Your task to perform on an android device: uninstall "Life360: Find Family & Friends" Image 0: 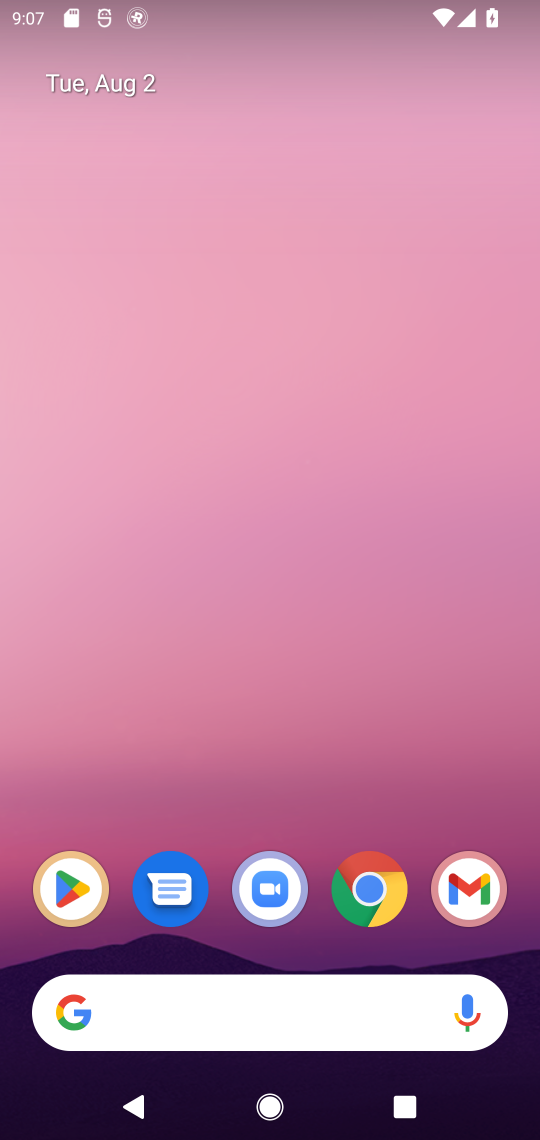
Step 0: press home button
Your task to perform on an android device: uninstall "Life360: Find Family & Friends" Image 1: 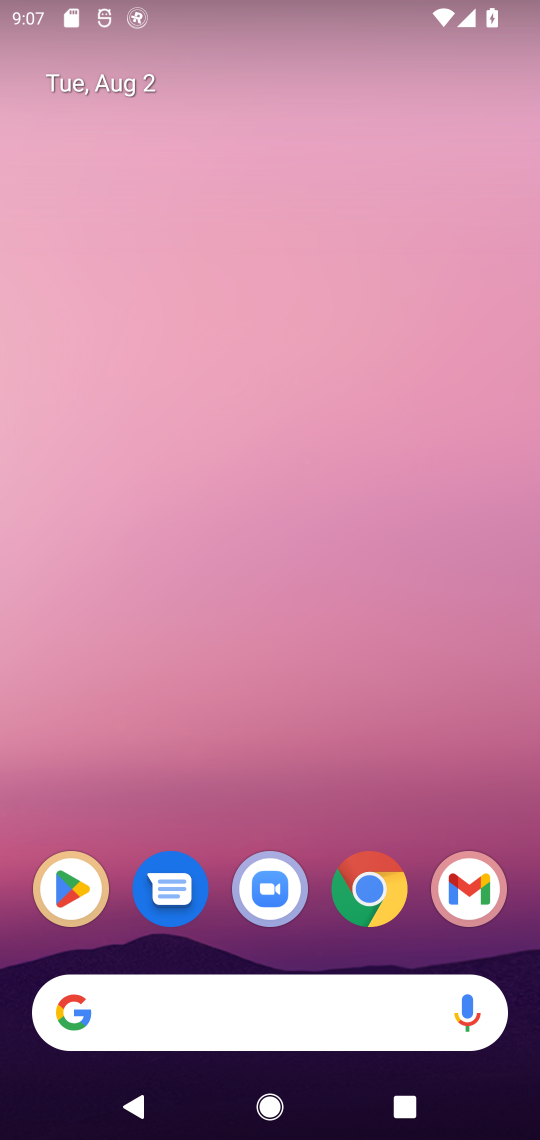
Step 1: click (64, 891)
Your task to perform on an android device: uninstall "Life360: Find Family & Friends" Image 2: 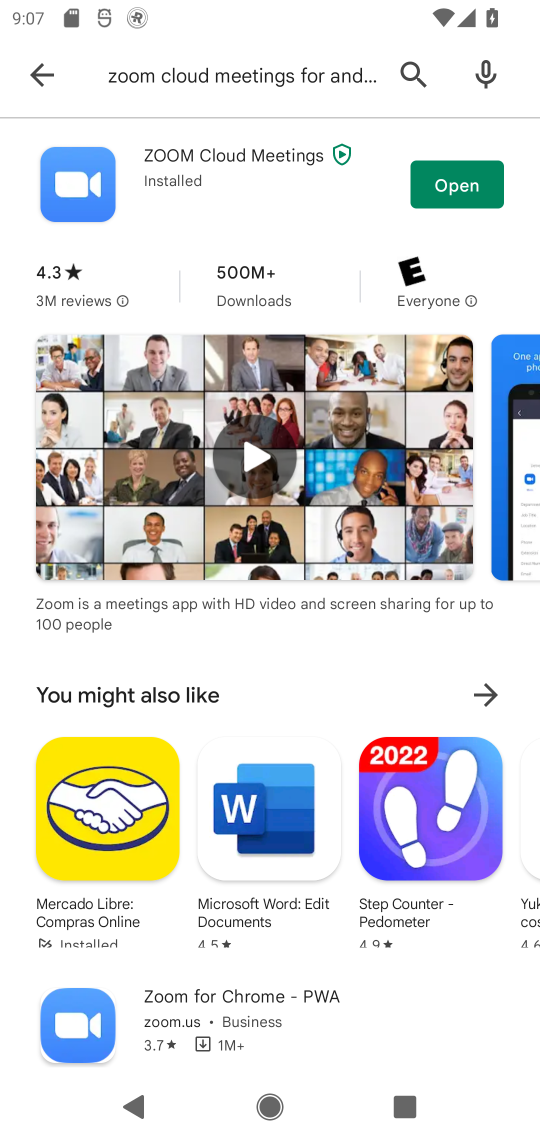
Step 2: click (413, 73)
Your task to perform on an android device: uninstall "Life360: Find Family & Friends" Image 3: 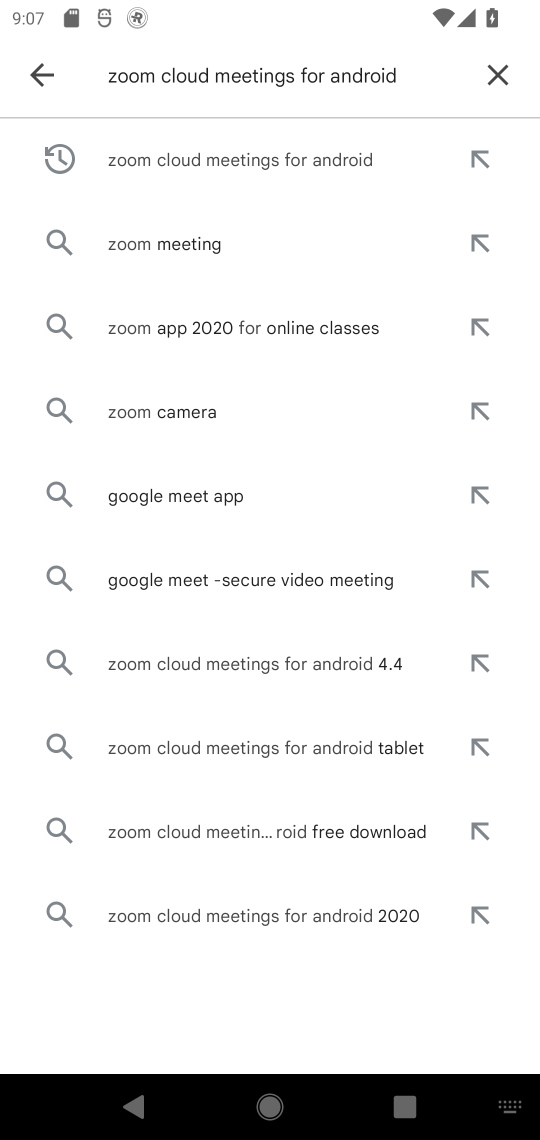
Step 3: click (488, 68)
Your task to perform on an android device: uninstall "Life360: Find Family & Friends" Image 4: 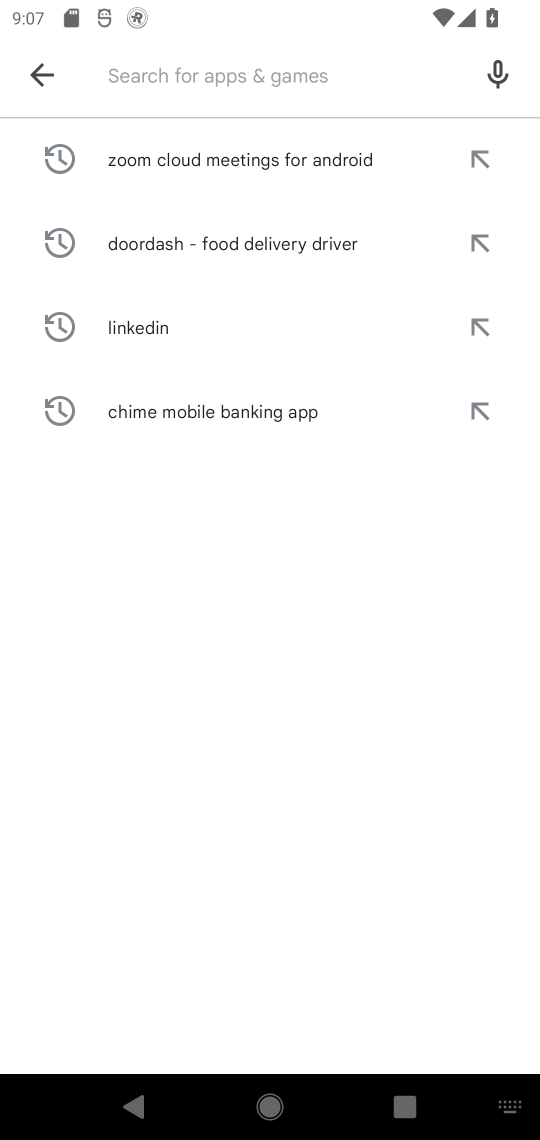
Step 4: type "Life360: Find Family & Friends"
Your task to perform on an android device: uninstall "Life360: Find Family & Friends" Image 5: 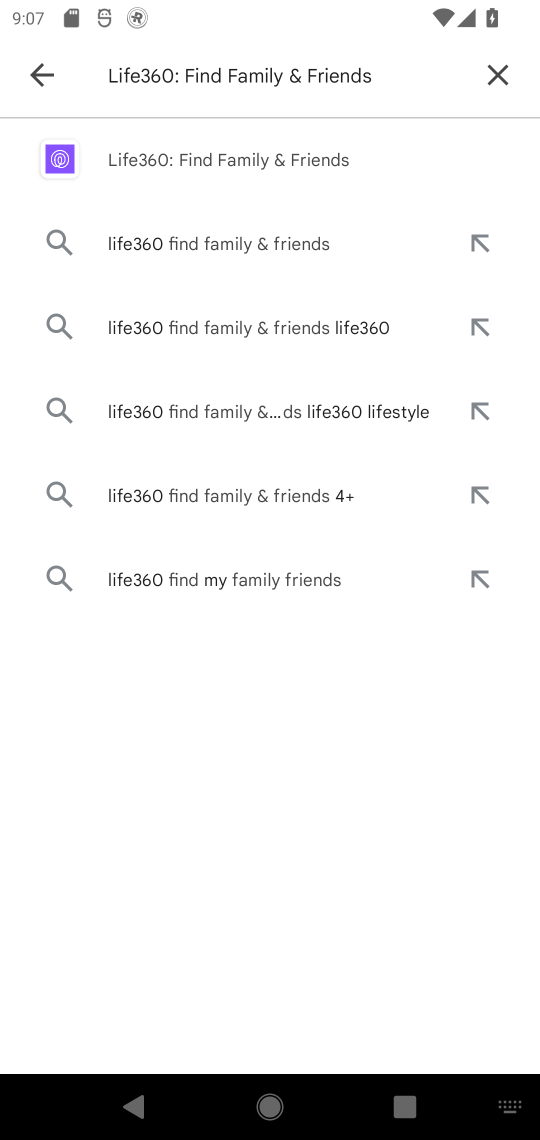
Step 5: click (258, 163)
Your task to perform on an android device: uninstall "Life360: Find Family & Friends" Image 6: 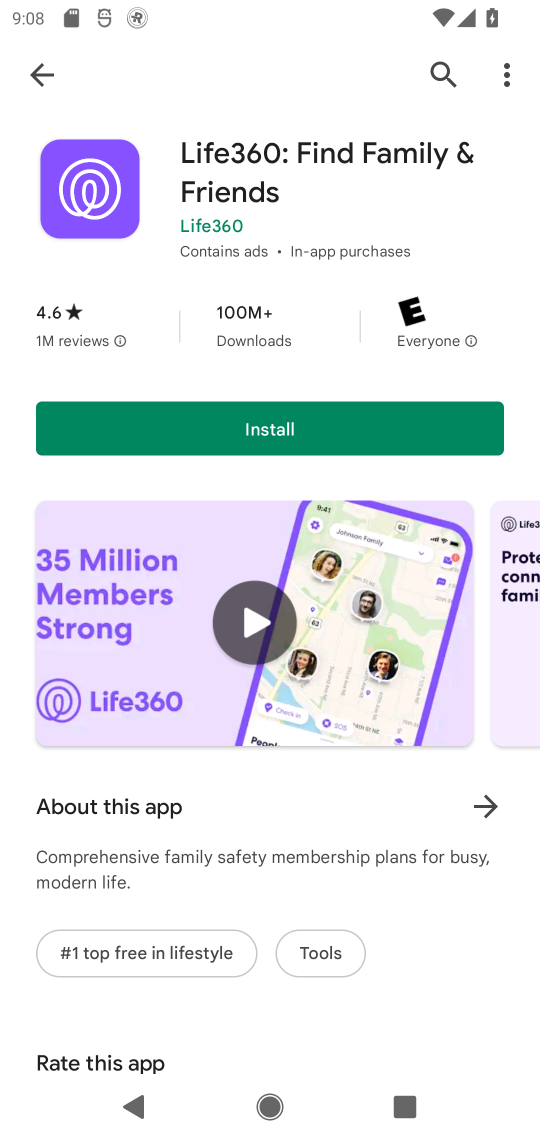
Step 6: task complete